Your task to perform on an android device: change the upload size in google photos Image 0: 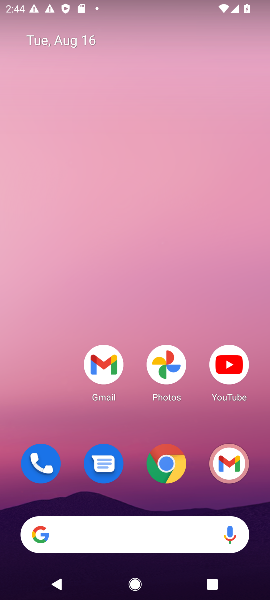
Step 0: drag from (153, 504) to (250, 45)
Your task to perform on an android device: change the upload size in google photos Image 1: 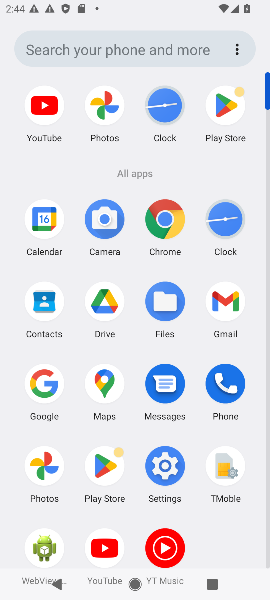
Step 1: click (41, 458)
Your task to perform on an android device: change the upload size in google photos Image 2: 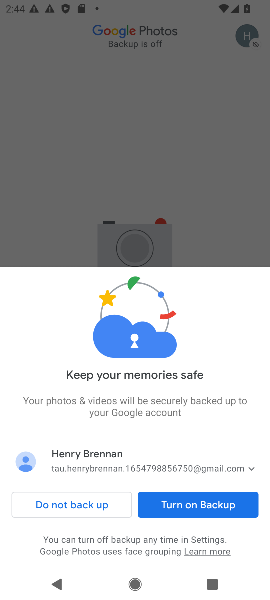
Step 2: click (165, 493)
Your task to perform on an android device: change the upload size in google photos Image 3: 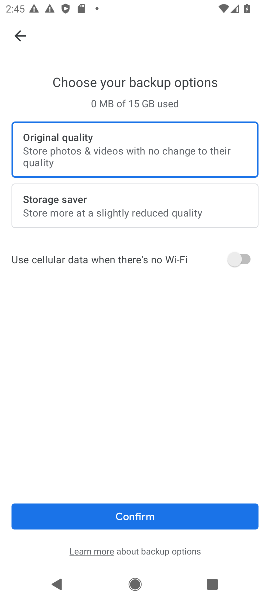
Step 3: click (59, 214)
Your task to perform on an android device: change the upload size in google photos Image 4: 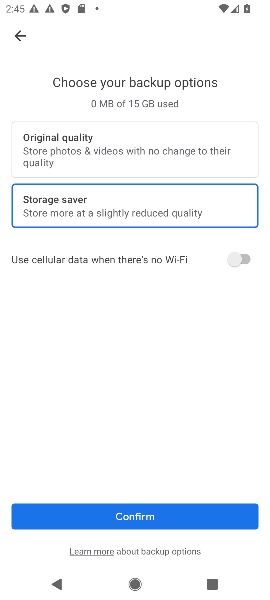
Step 4: click (155, 524)
Your task to perform on an android device: change the upload size in google photos Image 5: 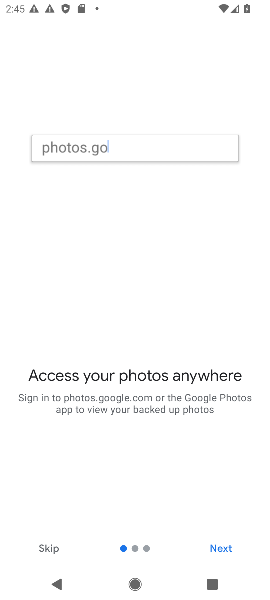
Step 5: task complete